Your task to perform on an android device: What's on my calendar today? Image 0: 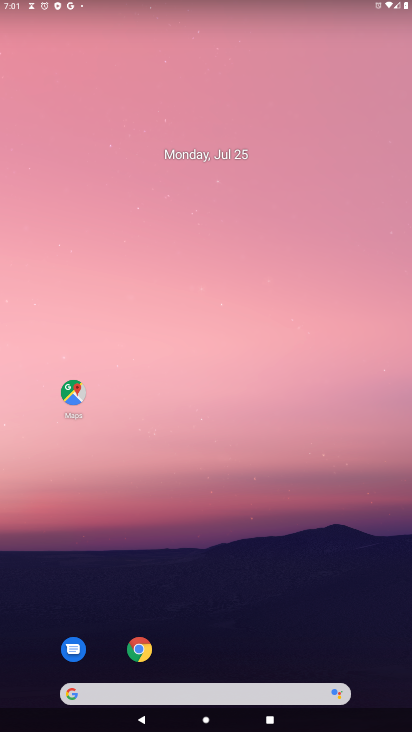
Step 0: drag from (120, 661) to (207, 37)
Your task to perform on an android device: What's on my calendar today? Image 1: 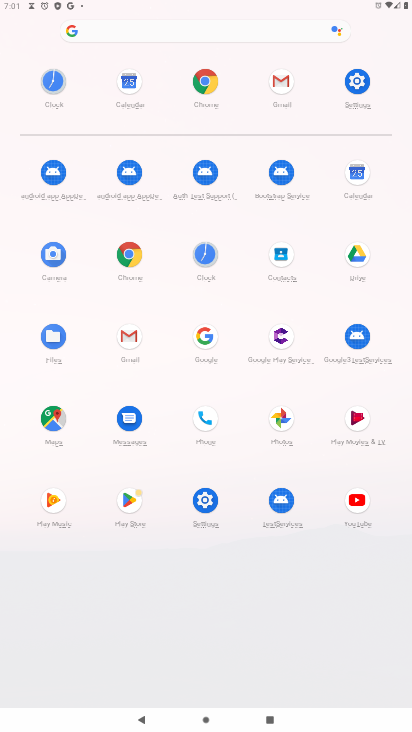
Step 1: click (356, 176)
Your task to perform on an android device: What's on my calendar today? Image 2: 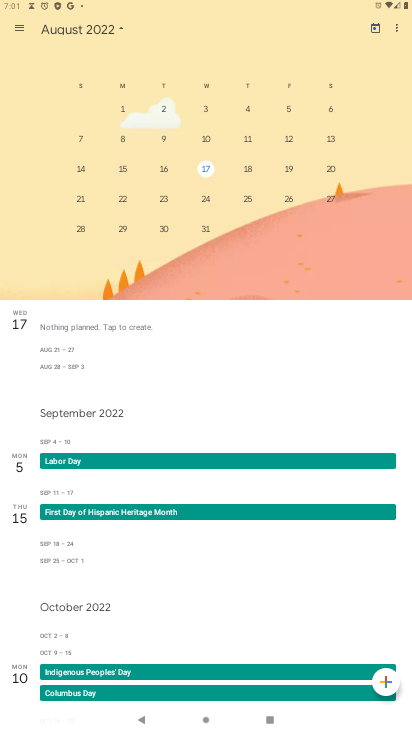
Step 2: drag from (125, 144) to (292, 179)
Your task to perform on an android device: What's on my calendar today? Image 3: 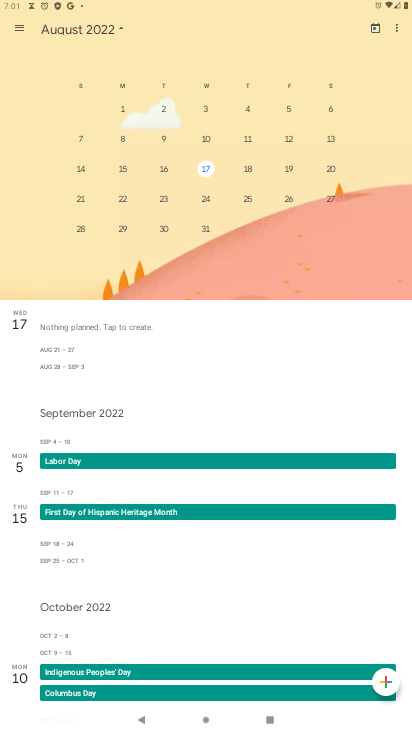
Step 3: drag from (76, 169) to (382, 166)
Your task to perform on an android device: What's on my calendar today? Image 4: 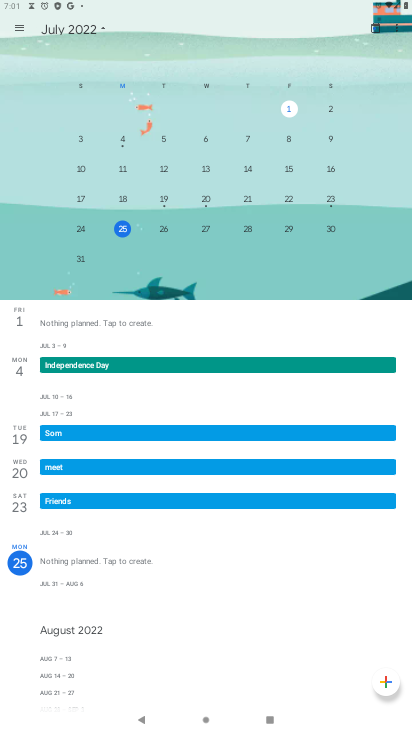
Step 4: click (129, 231)
Your task to perform on an android device: What's on my calendar today? Image 5: 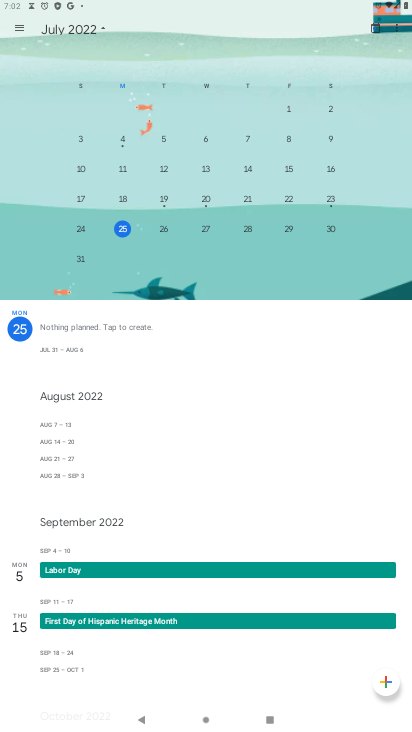
Step 5: task complete